Your task to perform on an android device: move a message to another label in the gmail app Image 0: 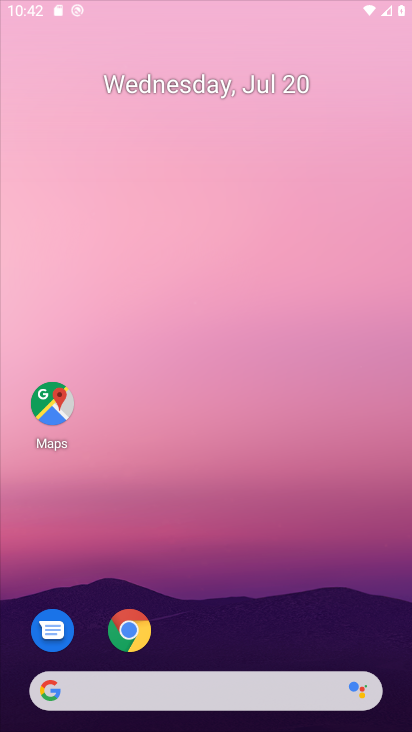
Step 0: drag from (275, 684) to (216, 280)
Your task to perform on an android device: move a message to another label in the gmail app Image 1: 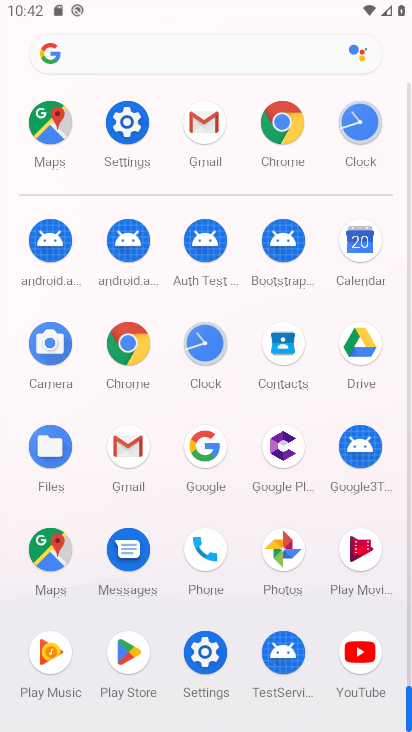
Step 1: click (129, 455)
Your task to perform on an android device: move a message to another label in the gmail app Image 2: 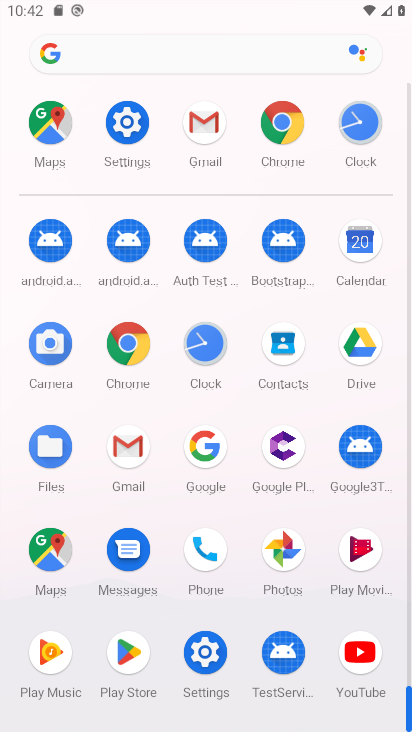
Step 2: click (129, 454)
Your task to perform on an android device: move a message to another label in the gmail app Image 3: 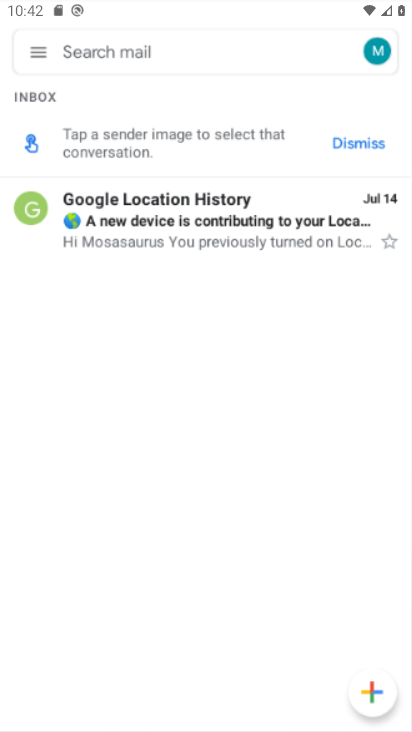
Step 3: click (132, 450)
Your task to perform on an android device: move a message to another label in the gmail app Image 4: 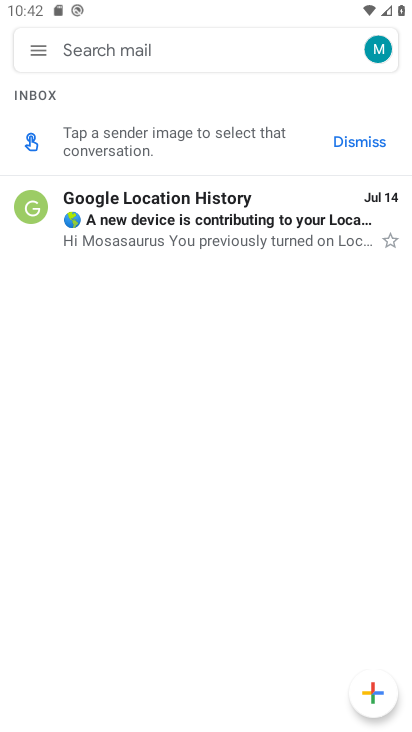
Step 4: click (138, 443)
Your task to perform on an android device: move a message to another label in the gmail app Image 5: 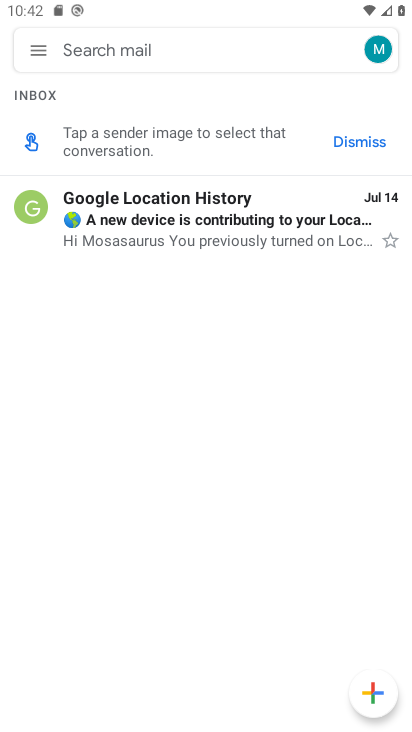
Step 5: click (138, 443)
Your task to perform on an android device: move a message to another label in the gmail app Image 6: 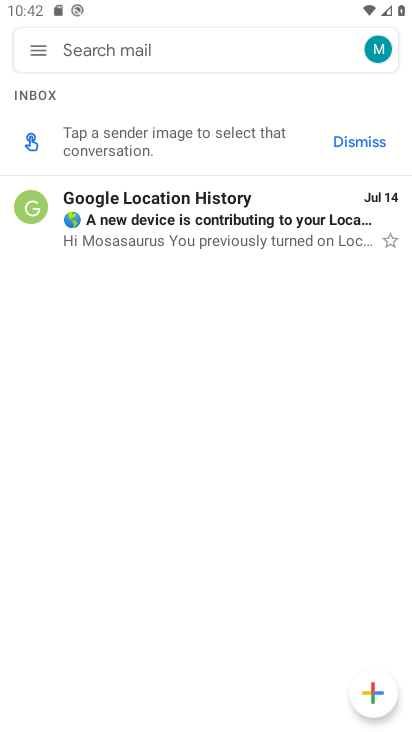
Step 6: click (230, 227)
Your task to perform on an android device: move a message to another label in the gmail app Image 7: 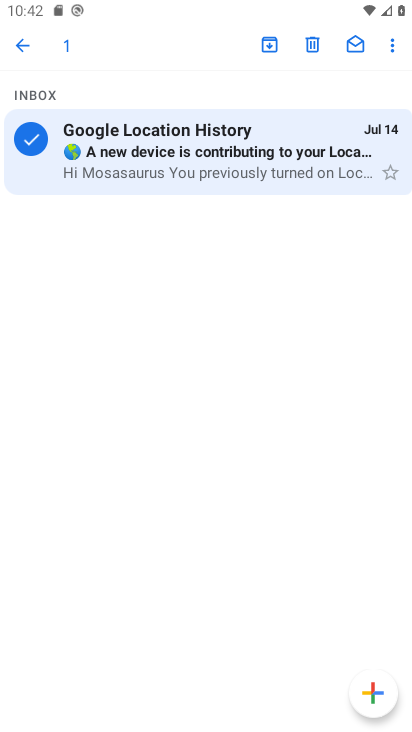
Step 7: click (387, 168)
Your task to perform on an android device: move a message to another label in the gmail app Image 8: 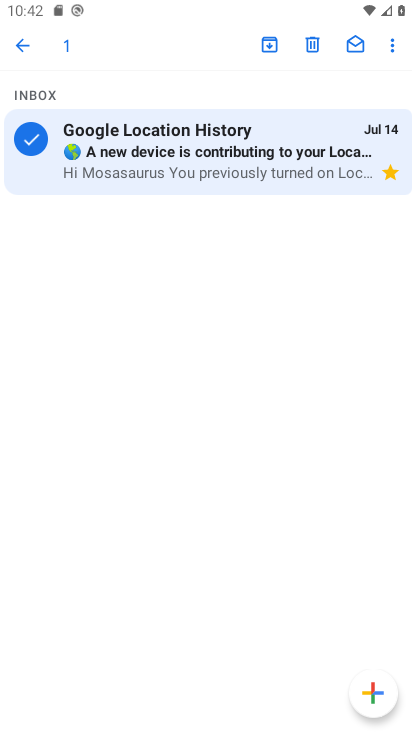
Step 8: task complete